Your task to perform on an android device: turn notification dots off Image 0: 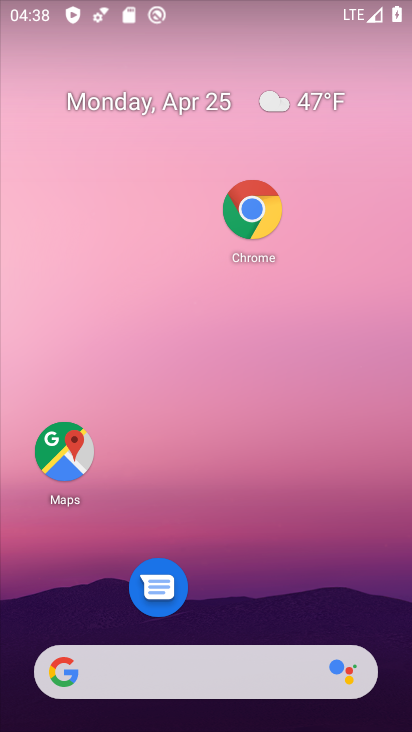
Step 0: drag from (304, 561) to (313, 109)
Your task to perform on an android device: turn notification dots off Image 1: 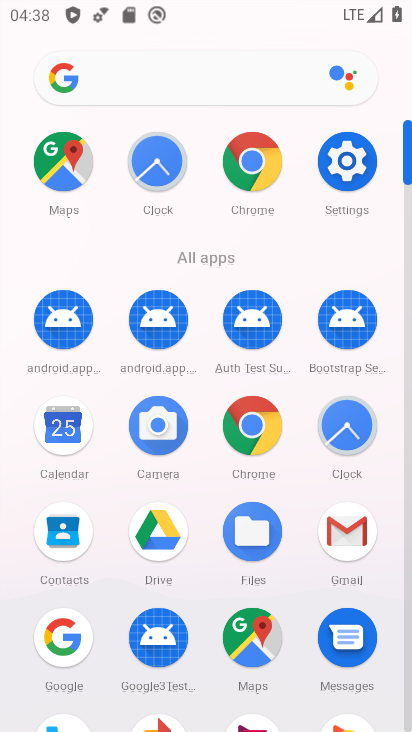
Step 1: click (349, 176)
Your task to perform on an android device: turn notification dots off Image 2: 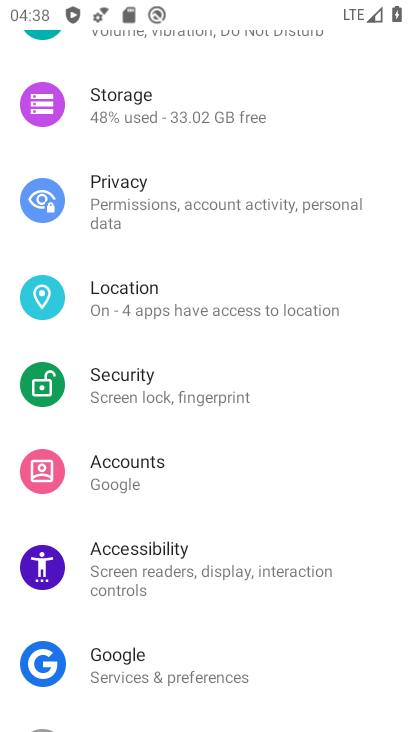
Step 2: drag from (270, 74) to (269, 628)
Your task to perform on an android device: turn notification dots off Image 3: 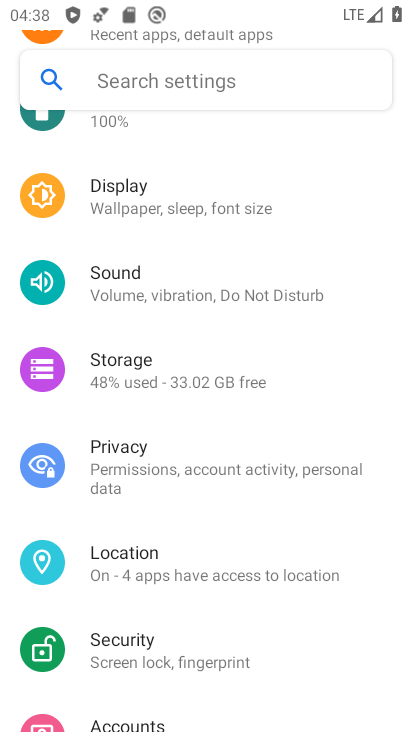
Step 3: drag from (284, 154) to (290, 606)
Your task to perform on an android device: turn notification dots off Image 4: 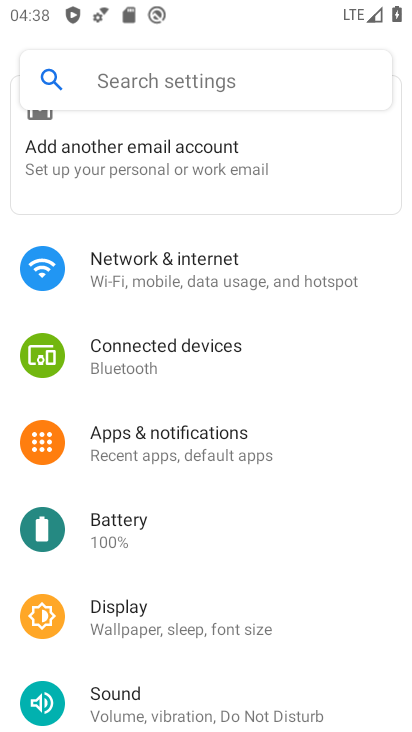
Step 4: click (248, 436)
Your task to perform on an android device: turn notification dots off Image 5: 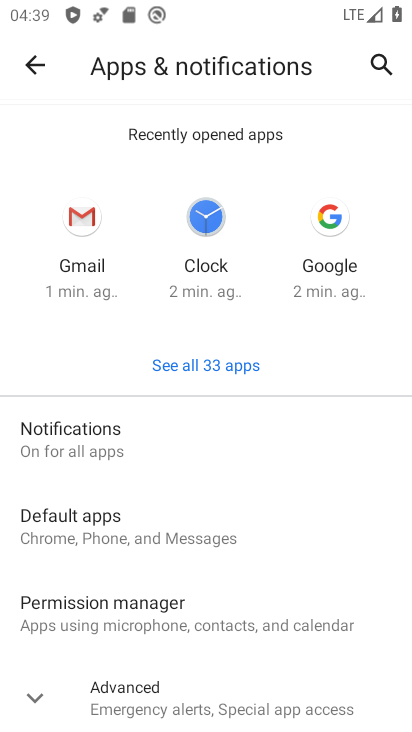
Step 5: click (248, 436)
Your task to perform on an android device: turn notification dots off Image 6: 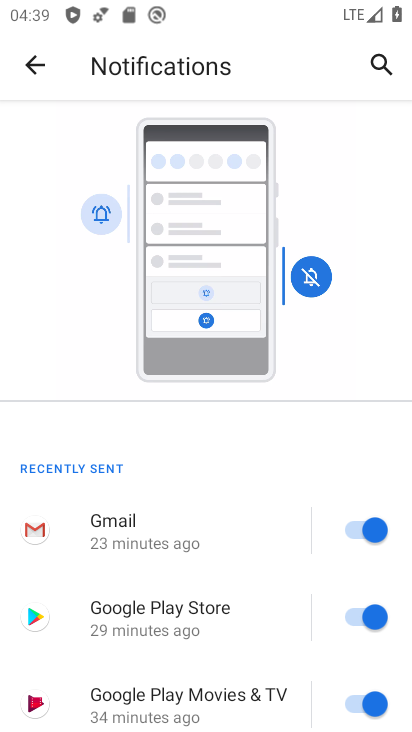
Step 6: drag from (277, 568) to (304, 50)
Your task to perform on an android device: turn notification dots off Image 7: 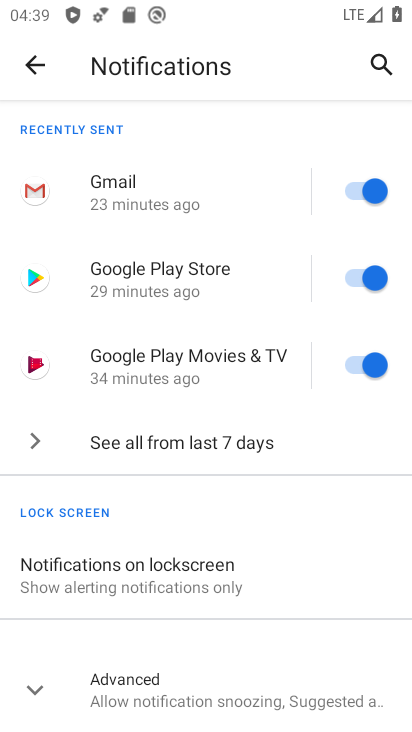
Step 7: click (303, 686)
Your task to perform on an android device: turn notification dots off Image 8: 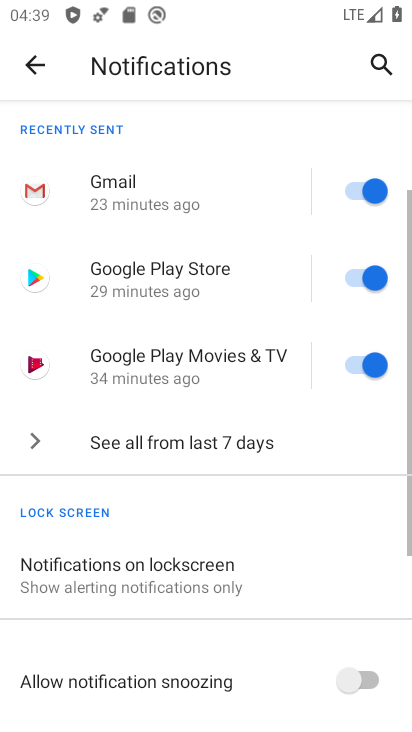
Step 8: task complete